Your task to perform on an android device: Go to privacy settings Image 0: 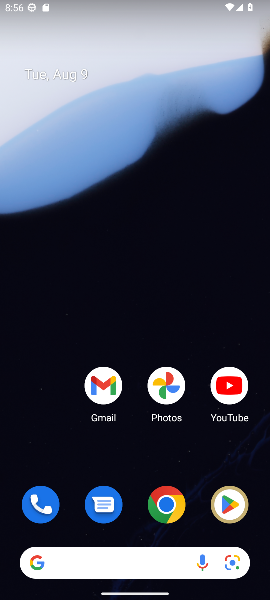
Step 0: drag from (137, 479) to (119, 99)
Your task to perform on an android device: Go to privacy settings Image 1: 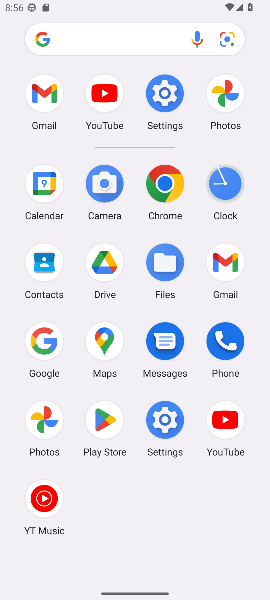
Step 1: click (166, 422)
Your task to perform on an android device: Go to privacy settings Image 2: 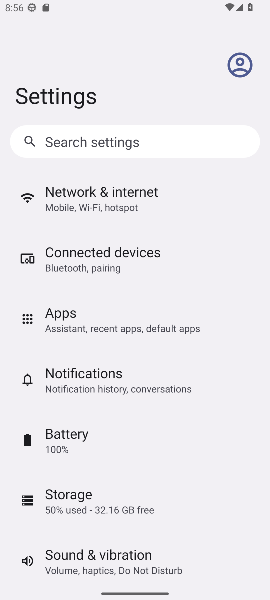
Step 2: drag from (164, 491) to (148, 233)
Your task to perform on an android device: Go to privacy settings Image 3: 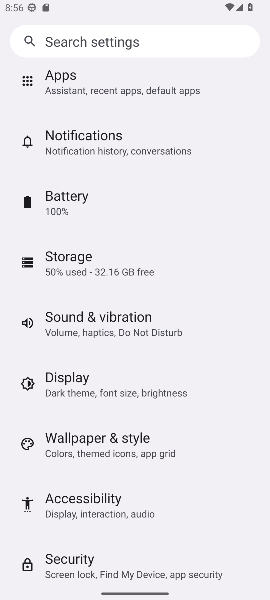
Step 3: drag from (172, 515) to (158, 186)
Your task to perform on an android device: Go to privacy settings Image 4: 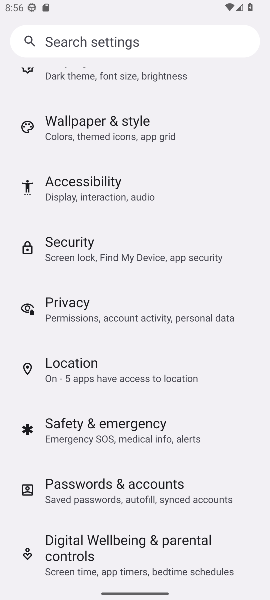
Step 4: click (67, 297)
Your task to perform on an android device: Go to privacy settings Image 5: 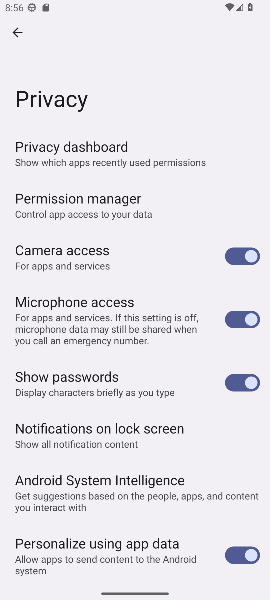
Step 5: task complete